Your task to perform on an android device: open chrome privacy settings Image 0: 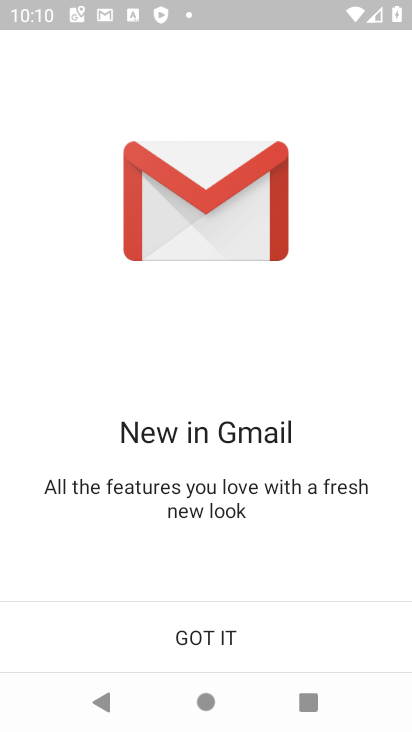
Step 0: press home button
Your task to perform on an android device: open chrome privacy settings Image 1: 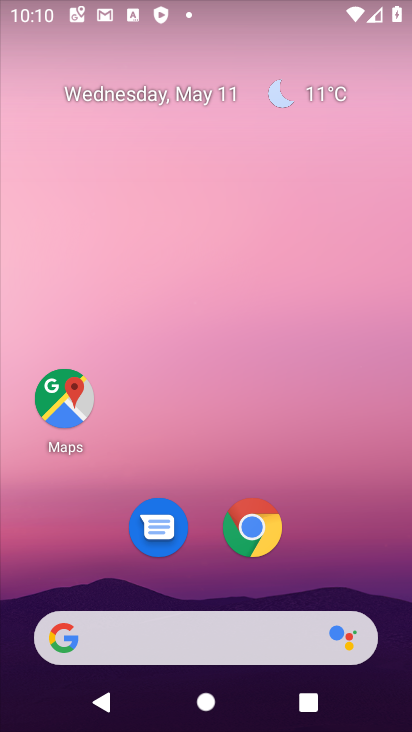
Step 1: drag from (357, 560) to (394, 14)
Your task to perform on an android device: open chrome privacy settings Image 2: 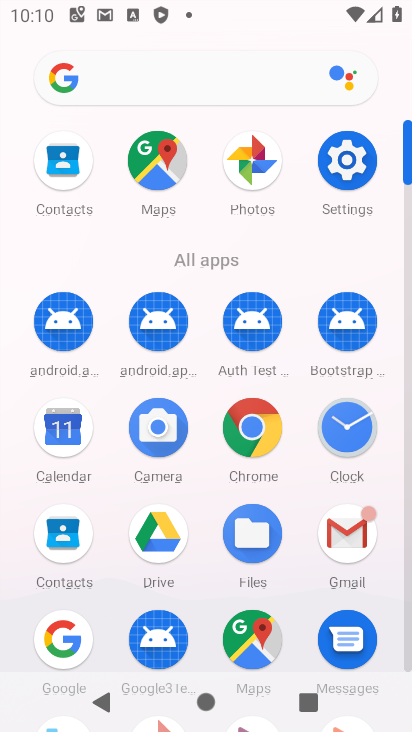
Step 2: click (261, 427)
Your task to perform on an android device: open chrome privacy settings Image 3: 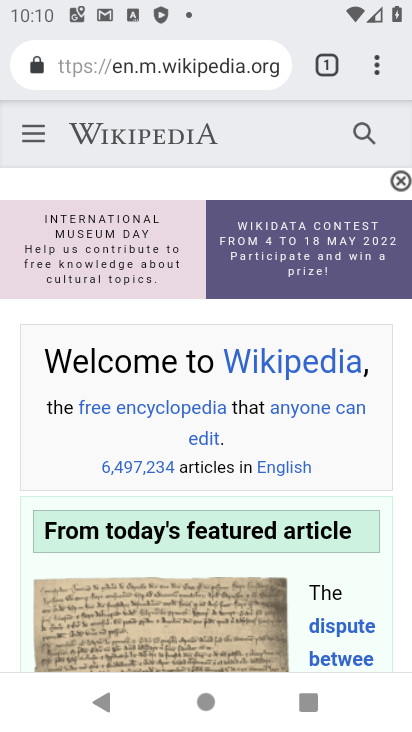
Step 3: drag from (385, 67) to (147, 574)
Your task to perform on an android device: open chrome privacy settings Image 4: 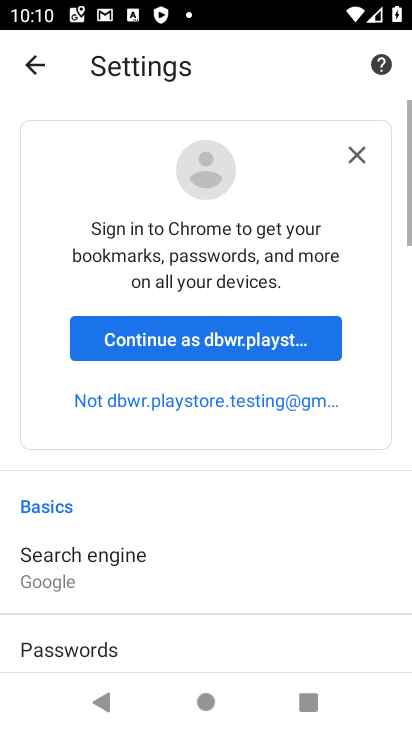
Step 4: drag from (164, 600) to (195, 149)
Your task to perform on an android device: open chrome privacy settings Image 5: 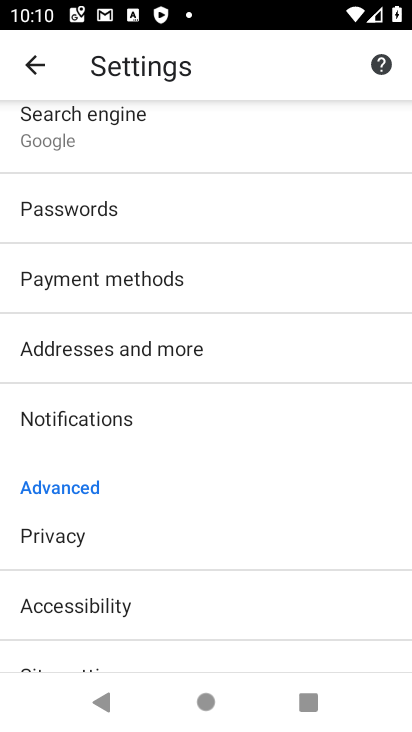
Step 5: click (99, 535)
Your task to perform on an android device: open chrome privacy settings Image 6: 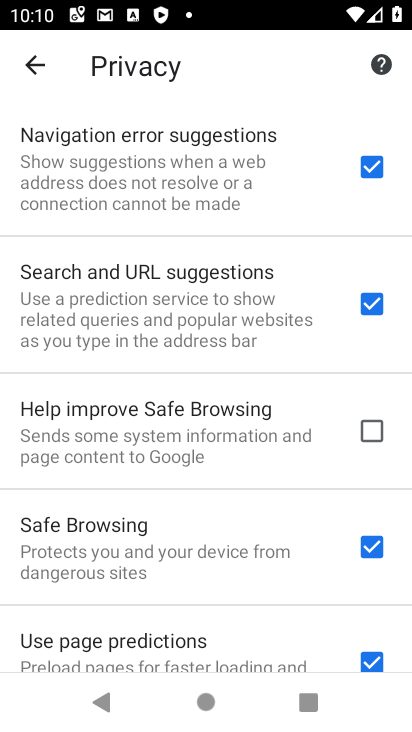
Step 6: task complete